Your task to perform on an android device: open device folders in google photos Image 0: 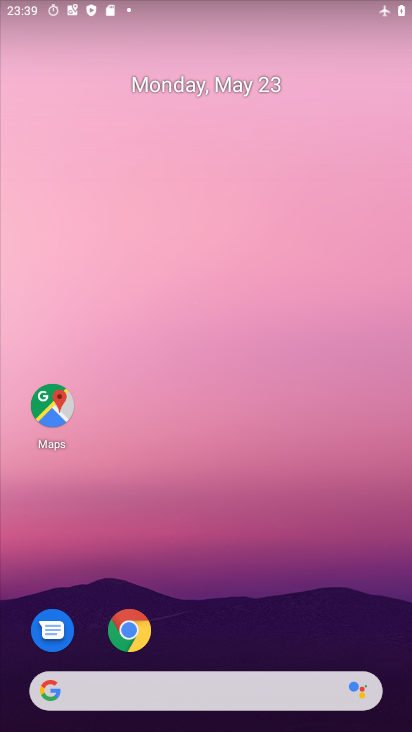
Step 0: drag from (245, 640) to (247, 4)
Your task to perform on an android device: open device folders in google photos Image 1: 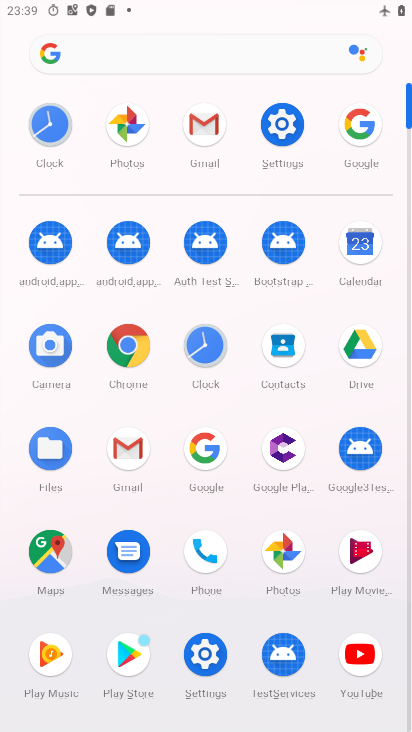
Step 1: click (284, 550)
Your task to perform on an android device: open device folders in google photos Image 2: 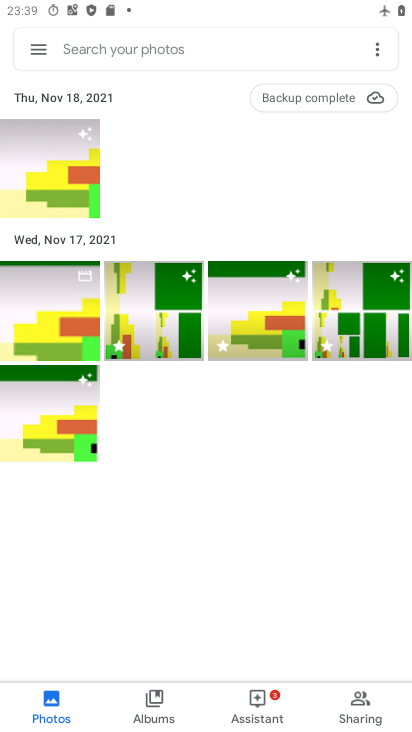
Step 2: click (34, 53)
Your task to perform on an android device: open device folders in google photos Image 3: 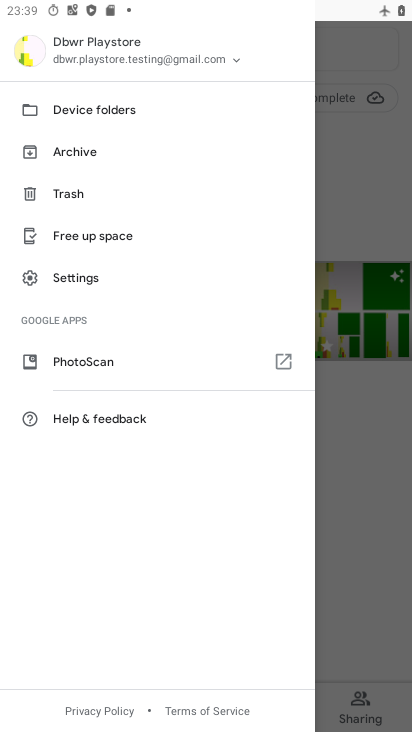
Step 3: click (69, 111)
Your task to perform on an android device: open device folders in google photos Image 4: 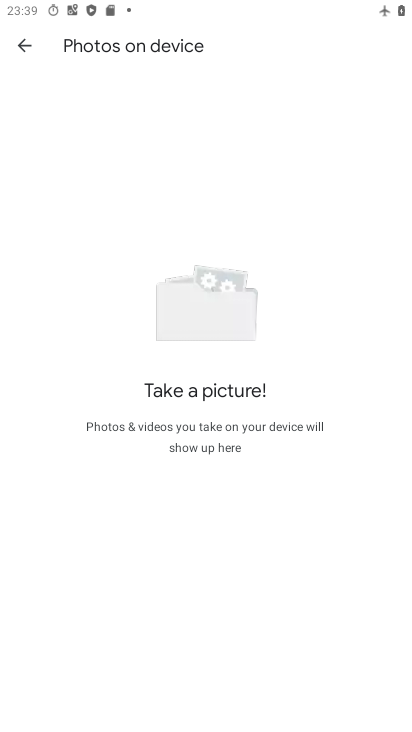
Step 4: task complete